Your task to perform on an android device: allow cookies in the chrome app Image 0: 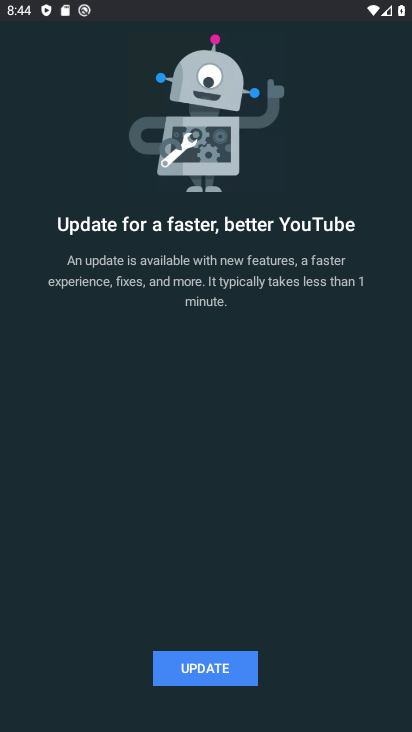
Step 0: press home button
Your task to perform on an android device: allow cookies in the chrome app Image 1: 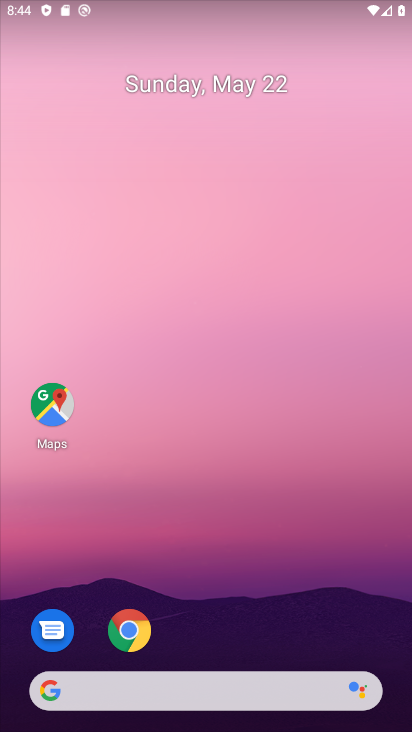
Step 1: click (139, 625)
Your task to perform on an android device: allow cookies in the chrome app Image 2: 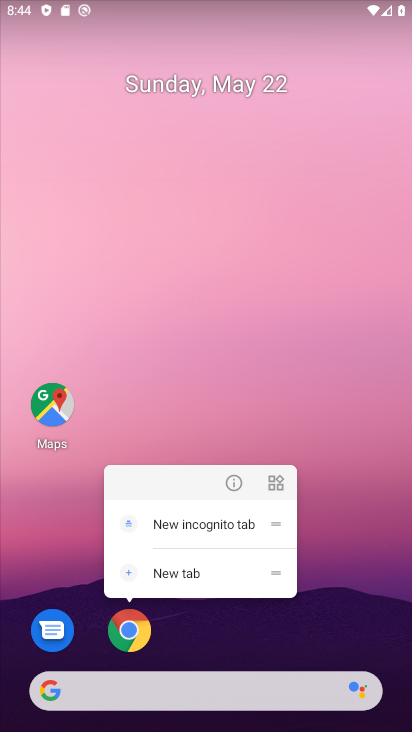
Step 2: click (116, 623)
Your task to perform on an android device: allow cookies in the chrome app Image 3: 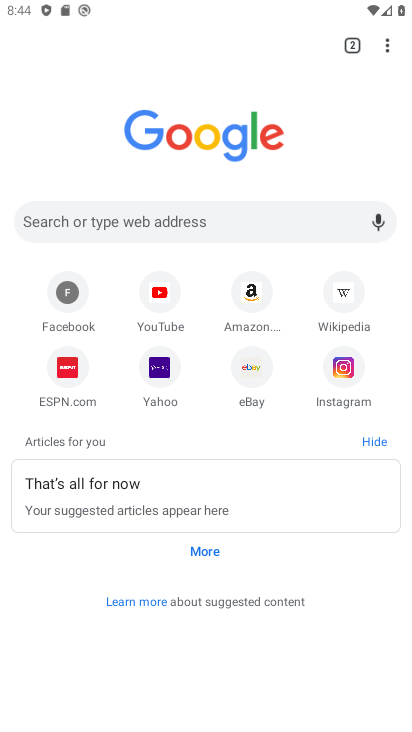
Step 3: click (390, 42)
Your task to perform on an android device: allow cookies in the chrome app Image 4: 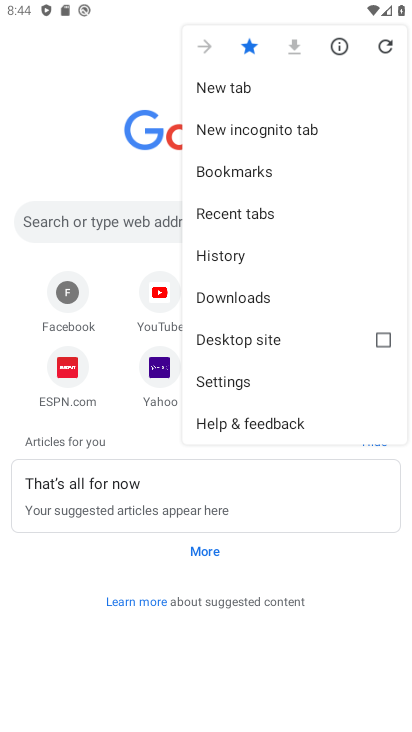
Step 4: click (203, 381)
Your task to perform on an android device: allow cookies in the chrome app Image 5: 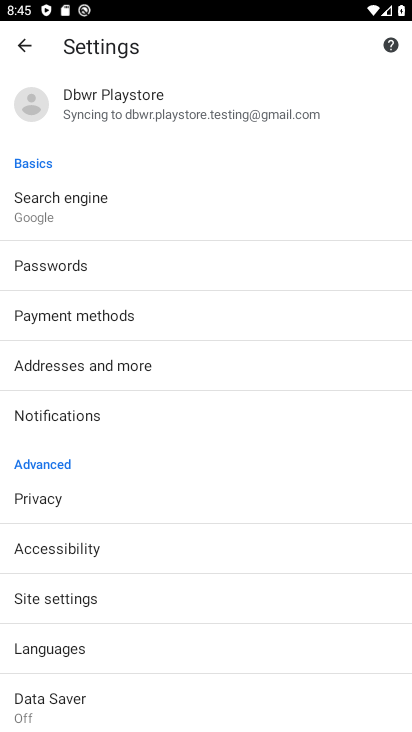
Step 5: click (57, 592)
Your task to perform on an android device: allow cookies in the chrome app Image 6: 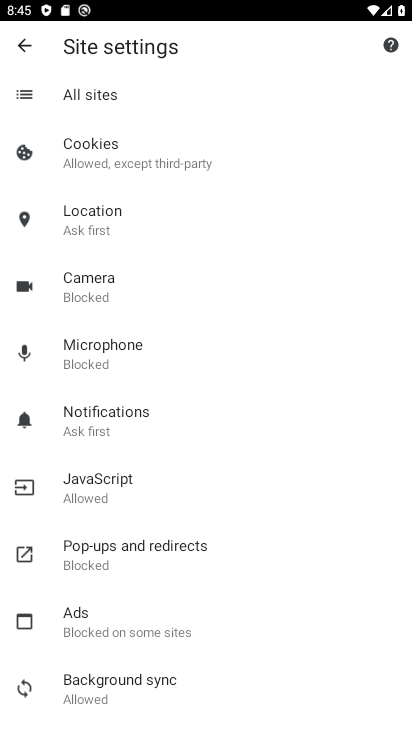
Step 6: click (85, 151)
Your task to perform on an android device: allow cookies in the chrome app Image 7: 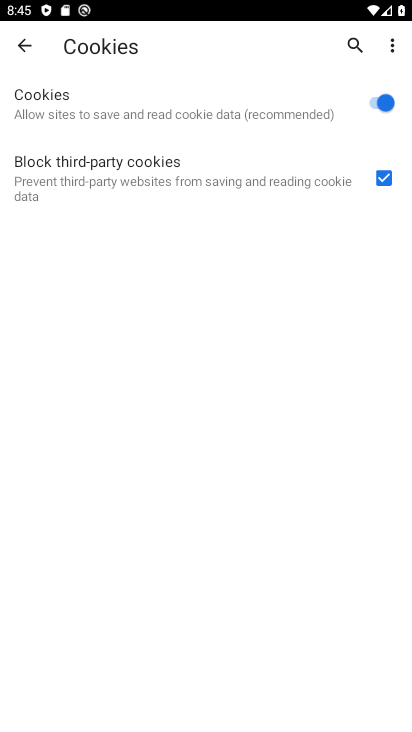
Step 7: task complete